Your task to perform on an android device: Open Google Chrome and open the bookmarks view Image 0: 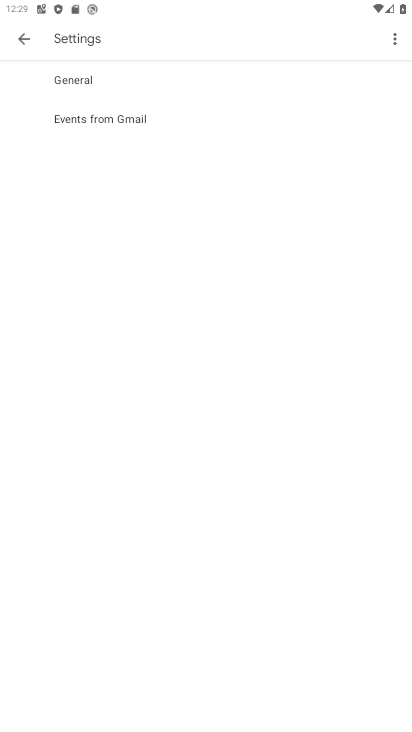
Step 0: drag from (225, 702) to (242, 51)
Your task to perform on an android device: Open Google Chrome and open the bookmarks view Image 1: 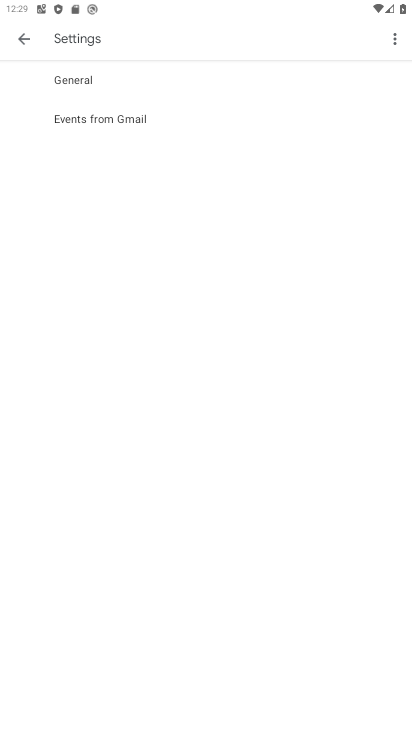
Step 1: press back button
Your task to perform on an android device: Open Google Chrome and open the bookmarks view Image 2: 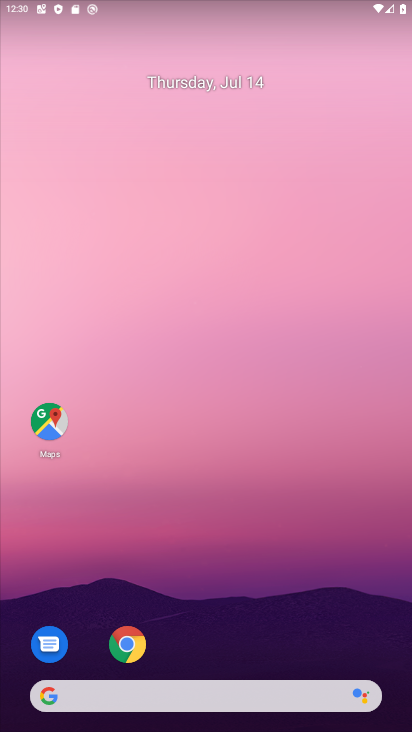
Step 2: drag from (282, 658) to (280, 4)
Your task to perform on an android device: Open Google Chrome and open the bookmarks view Image 3: 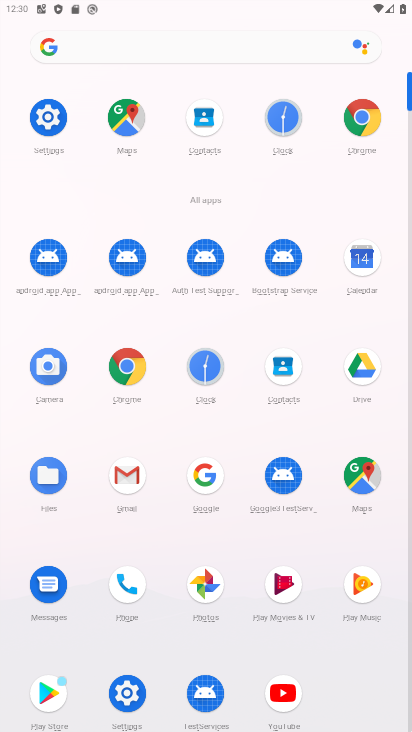
Step 3: click (115, 366)
Your task to perform on an android device: Open Google Chrome and open the bookmarks view Image 4: 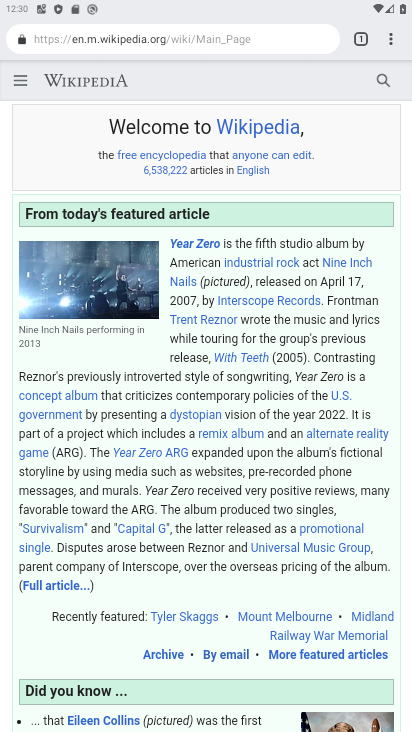
Step 4: drag from (376, 32) to (390, 184)
Your task to perform on an android device: Open Google Chrome and open the bookmarks view Image 5: 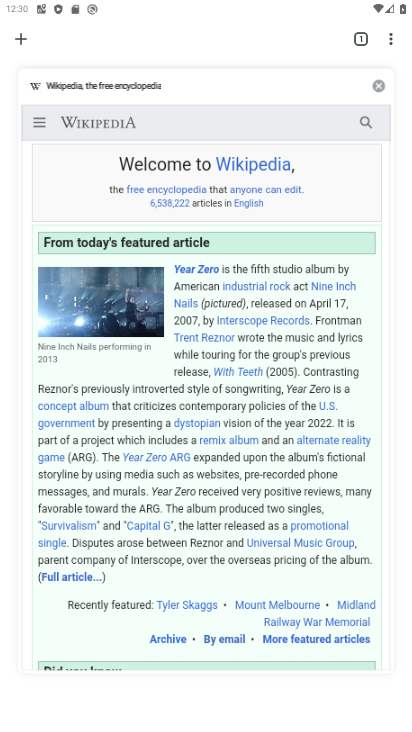
Step 5: press home button
Your task to perform on an android device: Open Google Chrome and open the bookmarks view Image 6: 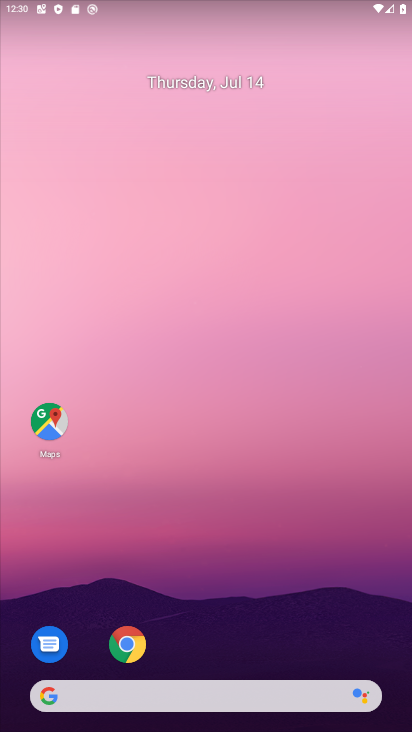
Step 6: drag from (200, 668) to (248, 91)
Your task to perform on an android device: Open Google Chrome and open the bookmarks view Image 7: 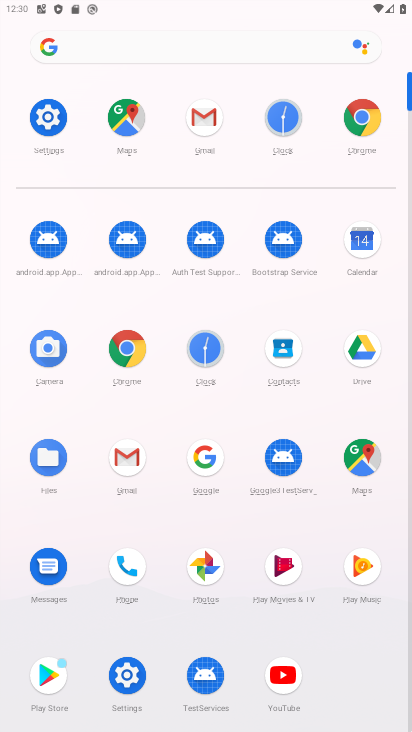
Step 7: click (130, 347)
Your task to perform on an android device: Open Google Chrome and open the bookmarks view Image 8: 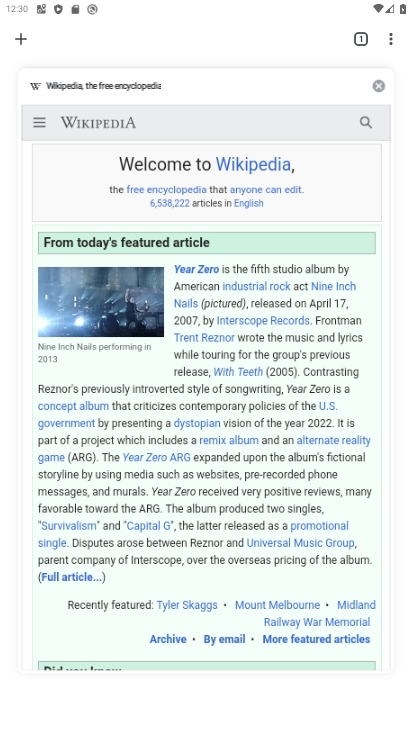
Step 8: drag from (399, 40) to (200, 109)
Your task to perform on an android device: Open Google Chrome and open the bookmarks view Image 9: 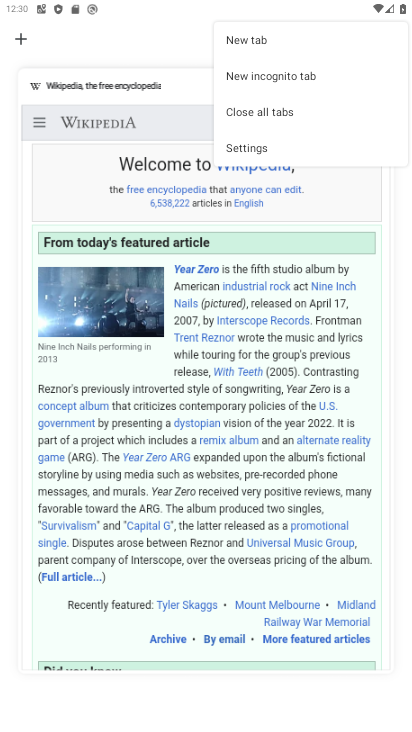
Step 9: click (147, 39)
Your task to perform on an android device: Open Google Chrome and open the bookmarks view Image 10: 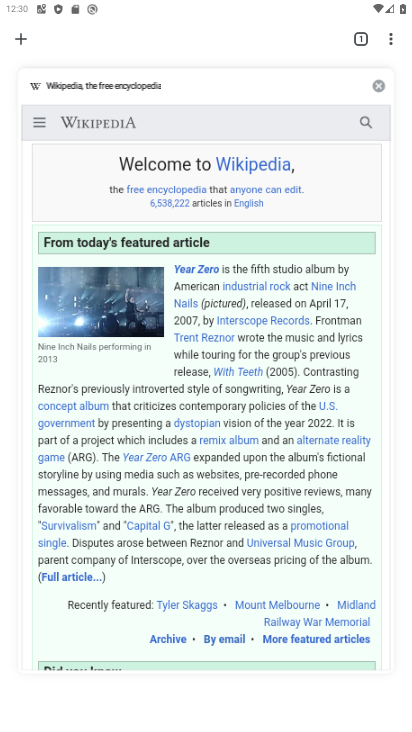
Step 10: click (310, 187)
Your task to perform on an android device: Open Google Chrome and open the bookmarks view Image 11: 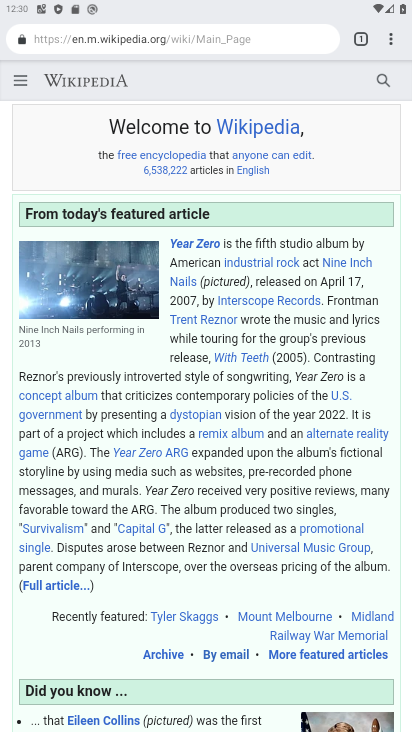
Step 11: click (394, 43)
Your task to perform on an android device: Open Google Chrome and open the bookmarks view Image 12: 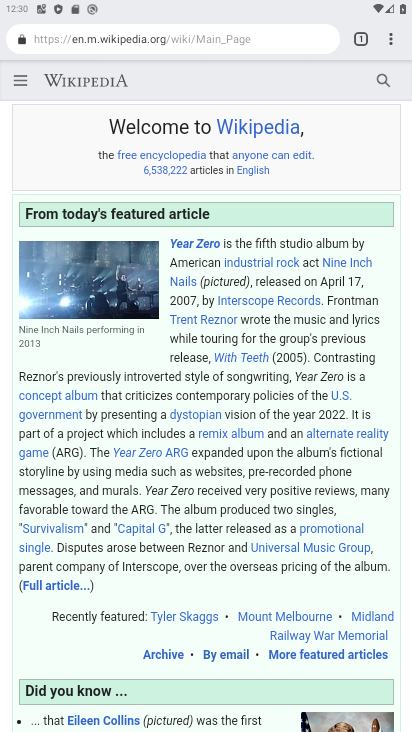
Step 12: task complete